Your task to perform on an android device: change the upload size in google photos Image 0: 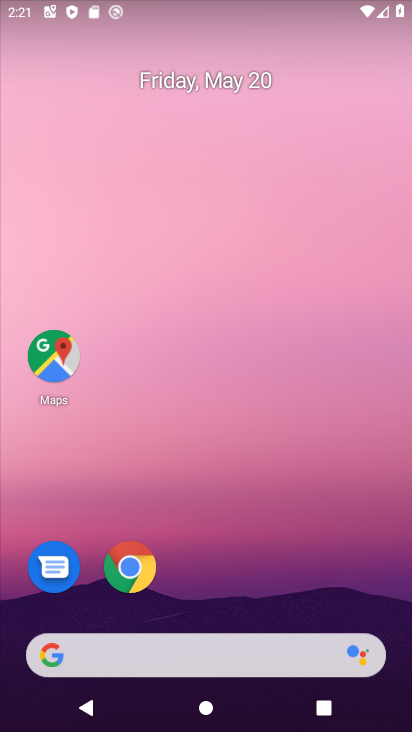
Step 0: drag from (257, 604) to (242, 160)
Your task to perform on an android device: change the upload size in google photos Image 1: 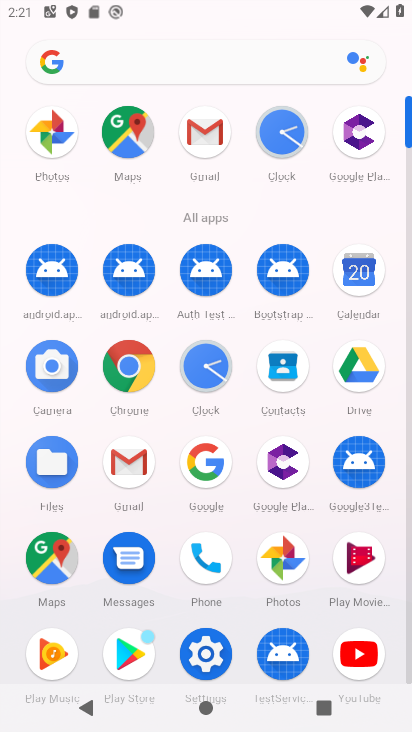
Step 1: click (58, 133)
Your task to perform on an android device: change the upload size in google photos Image 2: 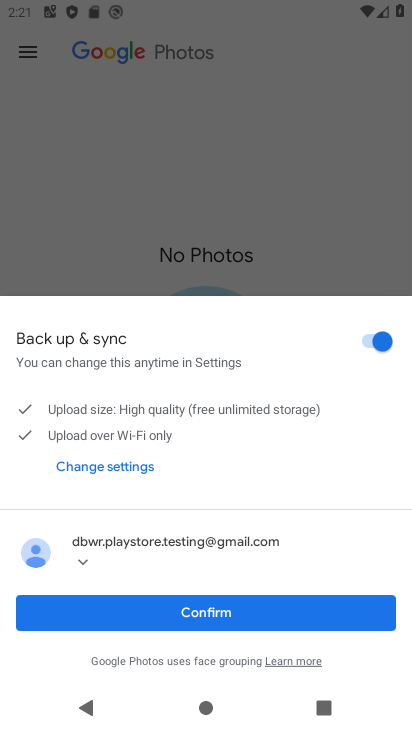
Step 2: click (240, 608)
Your task to perform on an android device: change the upload size in google photos Image 3: 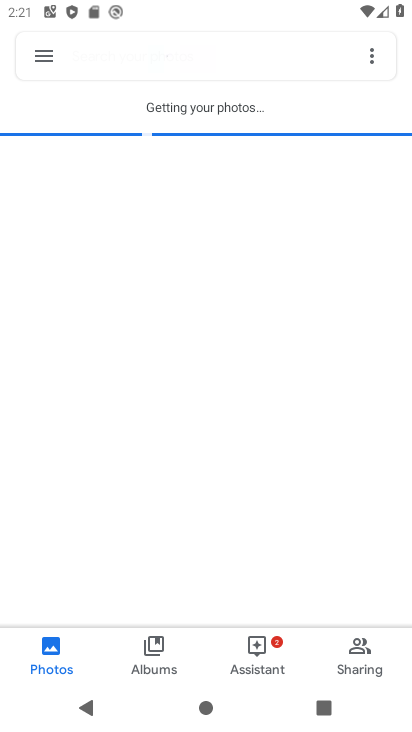
Step 3: click (41, 60)
Your task to perform on an android device: change the upload size in google photos Image 4: 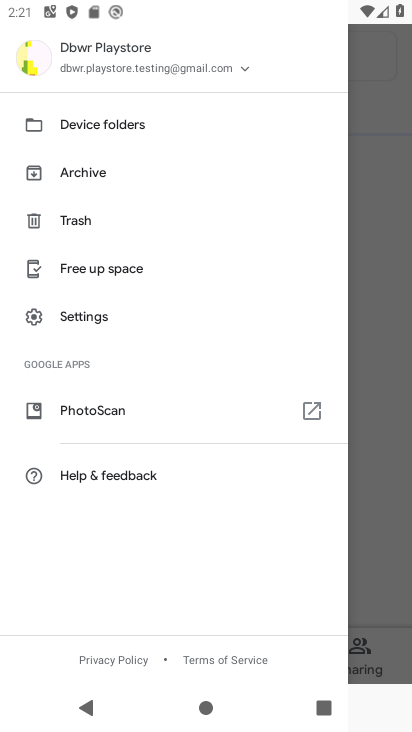
Step 4: click (169, 406)
Your task to perform on an android device: change the upload size in google photos Image 5: 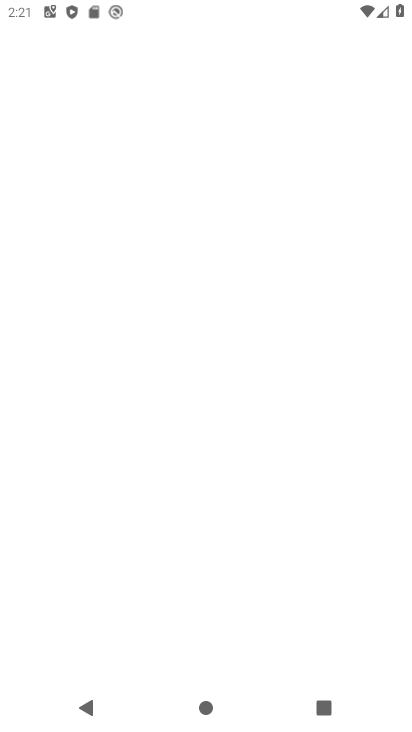
Step 5: click (84, 706)
Your task to perform on an android device: change the upload size in google photos Image 6: 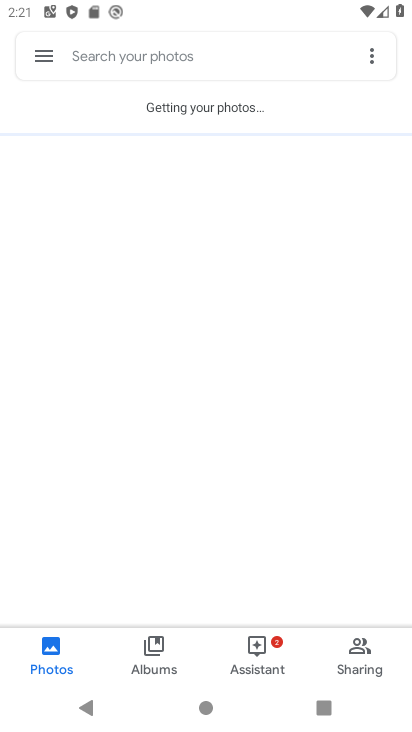
Step 6: click (42, 58)
Your task to perform on an android device: change the upload size in google photos Image 7: 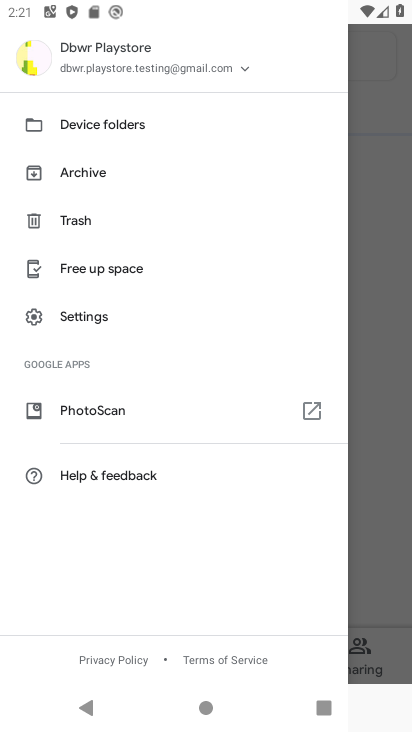
Step 7: click (130, 308)
Your task to perform on an android device: change the upload size in google photos Image 8: 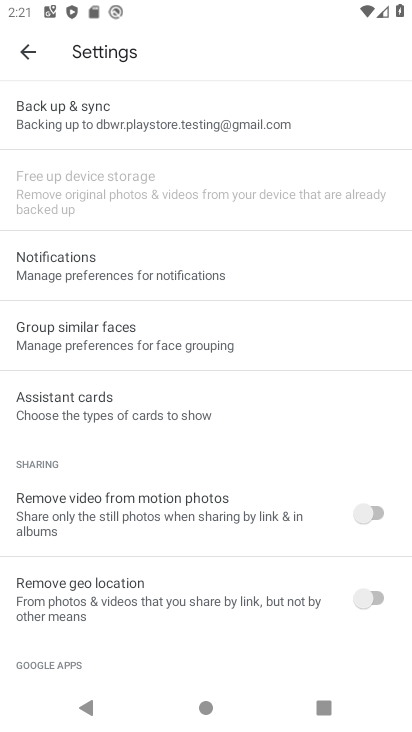
Step 8: click (201, 124)
Your task to perform on an android device: change the upload size in google photos Image 9: 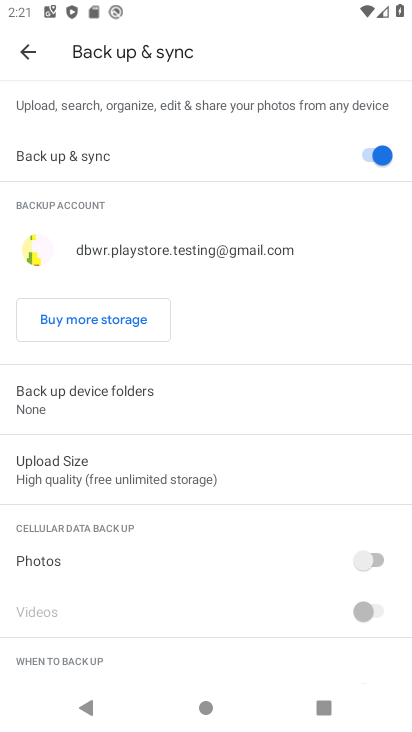
Step 9: click (261, 461)
Your task to perform on an android device: change the upload size in google photos Image 10: 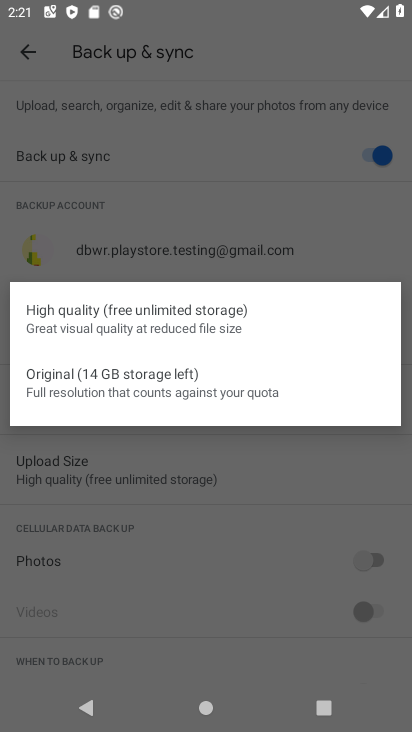
Step 10: click (243, 390)
Your task to perform on an android device: change the upload size in google photos Image 11: 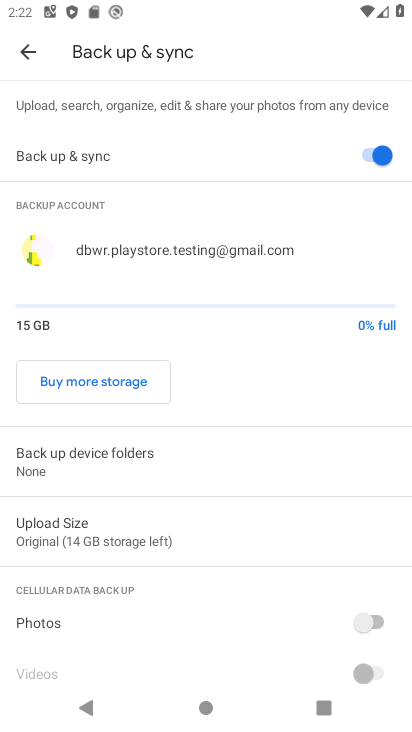
Step 11: task complete